Your task to perform on an android device: turn off wifi Image 0: 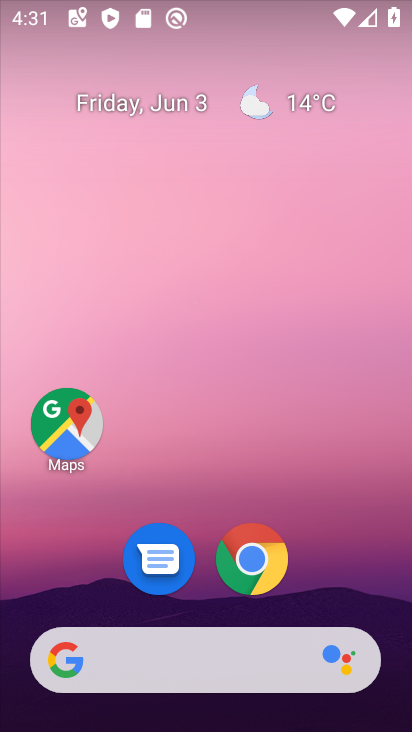
Step 0: drag from (247, 2) to (225, 501)
Your task to perform on an android device: turn off wifi Image 1: 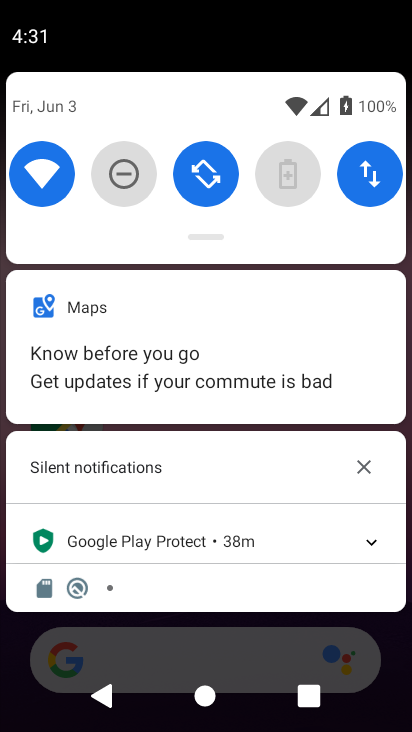
Step 1: click (39, 169)
Your task to perform on an android device: turn off wifi Image 2: 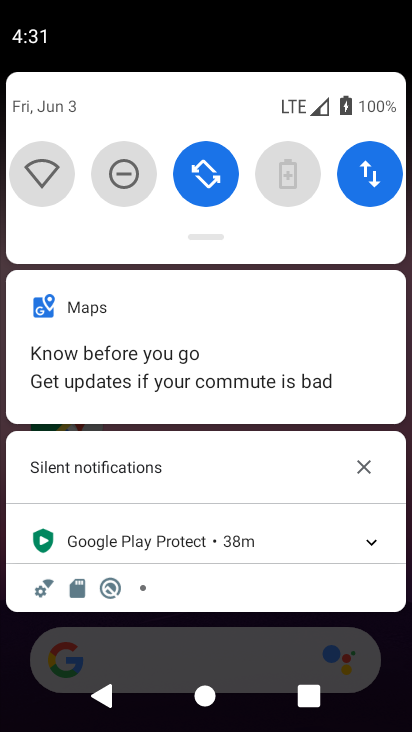
Step 2: task complete